Your task to perform on an android device: Open Google Chrome Image 0: 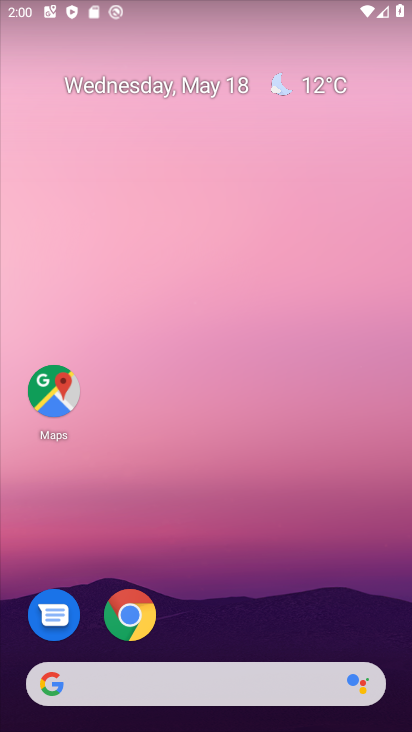
Step 0: drag from (312, 597) to (258, 6)
Your task to perform on an android device: Open Google Chrome Image 1: 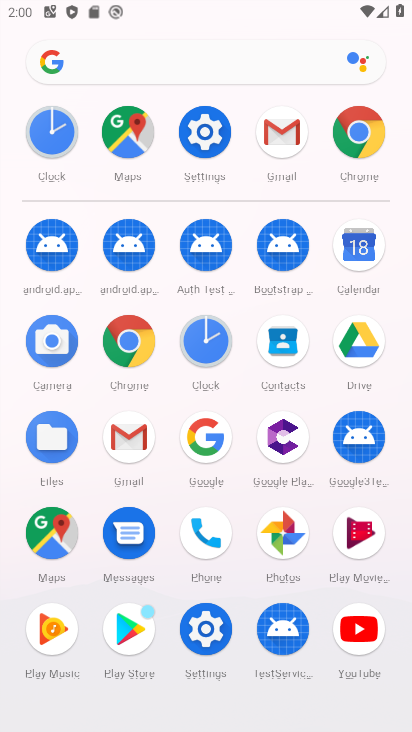
Step 1: click (127, 349)
Your task to perform on an android device: Open Google Chrome Image 2: 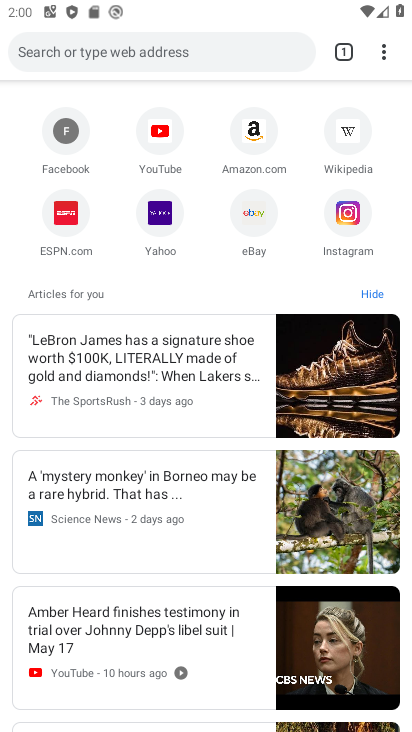
Step 2: task complete